Your task to perform on an android device: search for starred emails in the gmail app Image 0: 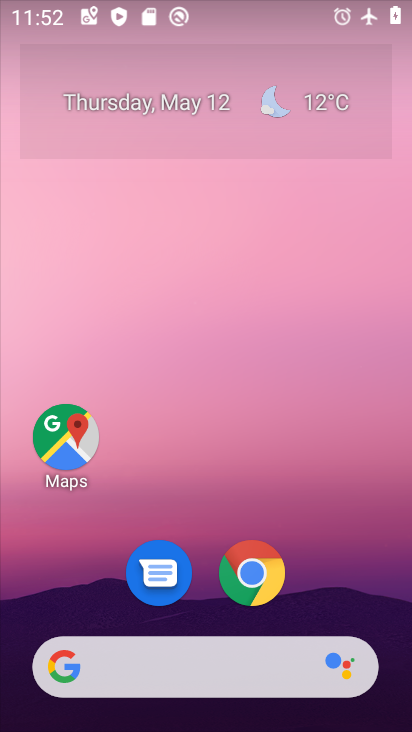
Step 0: drag from (255, 724) to (357, 84)
Your task to perform on an android device: search for starred emails in the gmail app Image 1: 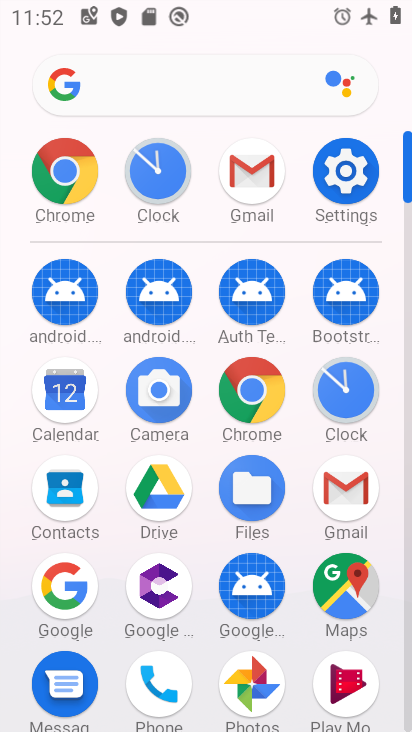
Step 1: click (245, 172)
Your task to perform on an android device: search for starred emails in the gmail app Image 2: 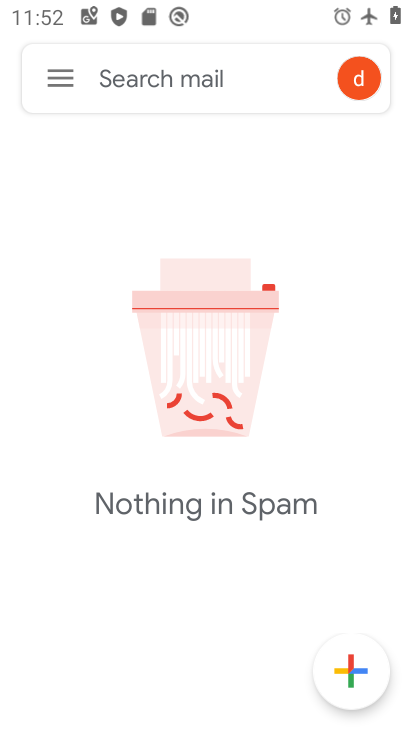
Step 2: click (73, 77)
Your task to perform on an android device: search for starred emails in the gmail app Image 3: 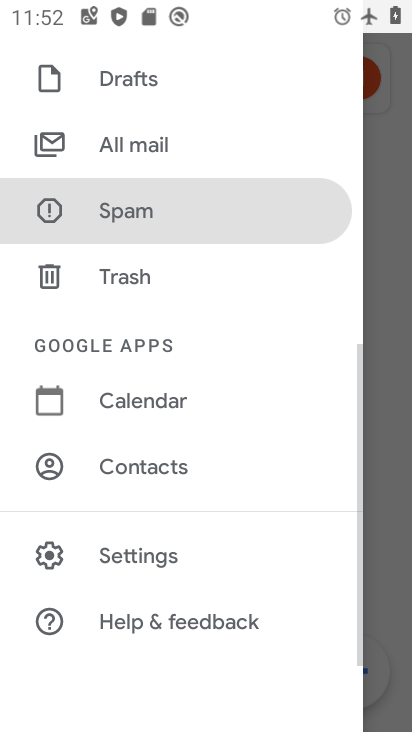
Step 3: drag from (281, 157) to (135, 728)
Your task to perform on an android device: search for starred emails in the gmail app Image 4: 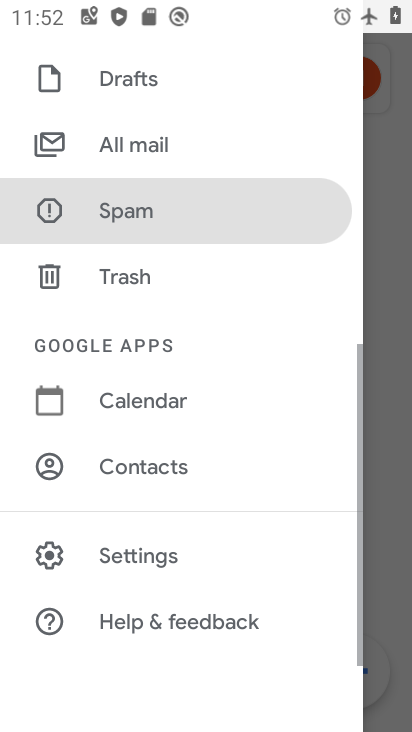
Step 4: drag from (143, 152) to (147, 724)
Your task to perform on an android device: search for starred emails in the gmail app Image 5: 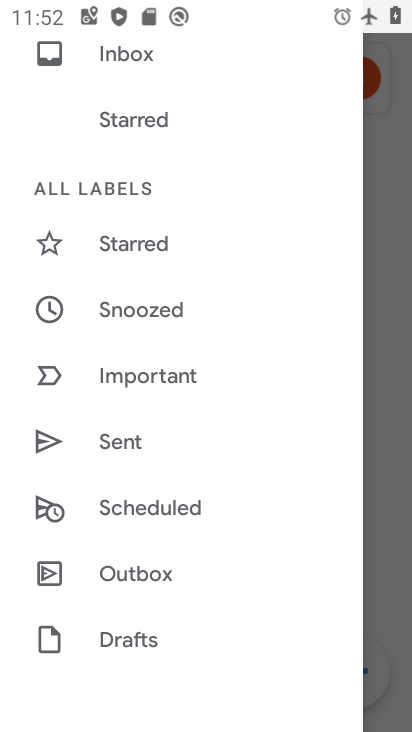
Step 5: drag from (227, 215) to (229, 728)
Your task to perform on an android device: search for starred emails in the gmail app Image 6: 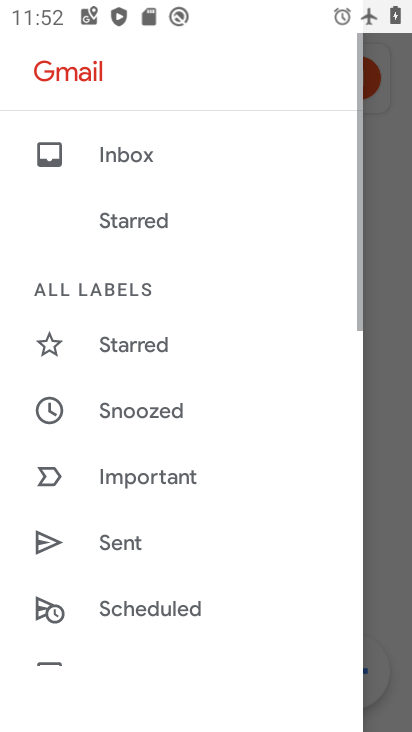
Step 6: click (135, 344)
Your task to perform on an android device: search for starred emails in the gmail app Image 7: 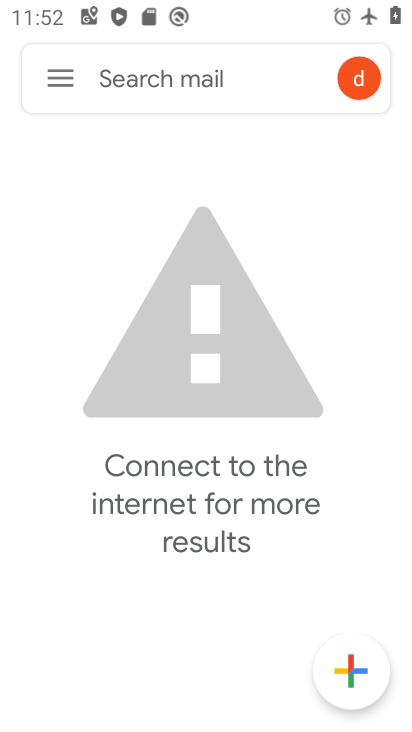
Step 7: task complete